Your task to perform on an android device: turn on wifi Image 0: 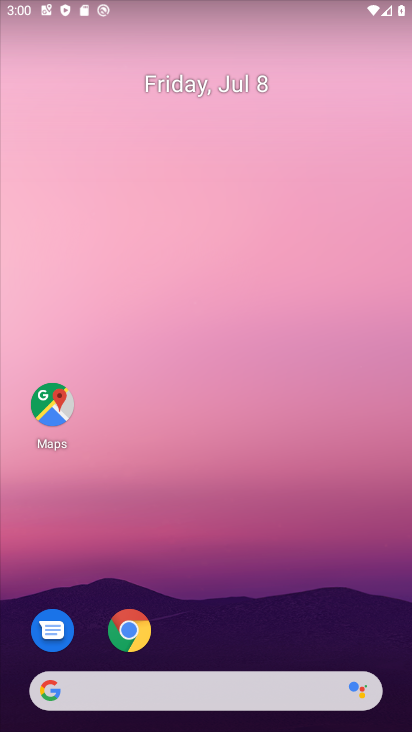
Step 0: drag from (139, 4) to (247, 564)
Your task to perform on an android device: turn on wifi Image 1: 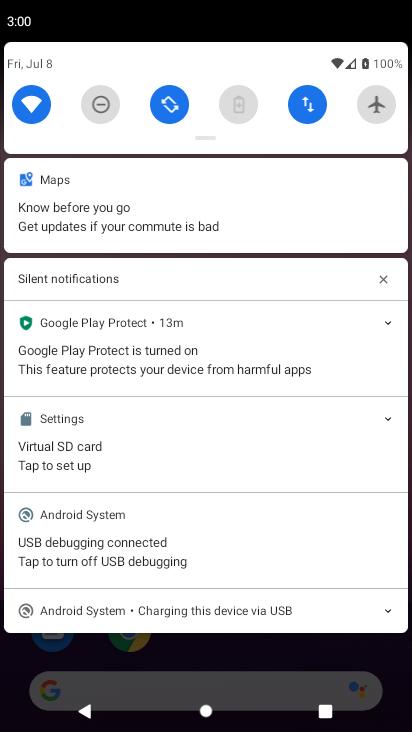
Step 1: click (30, 101)
Your task to perform on an android device: turn on wifi Image 2: 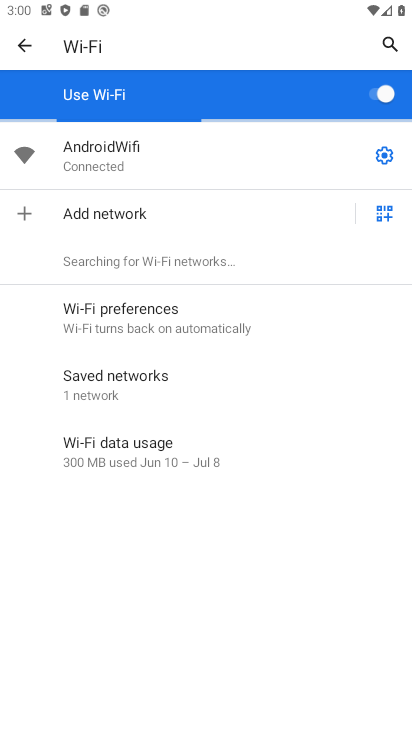
Step 2: task complete